Your task to perform on an android device: open app "Microsoft Excel" (install if not already installed) and go to login screen Image 0: 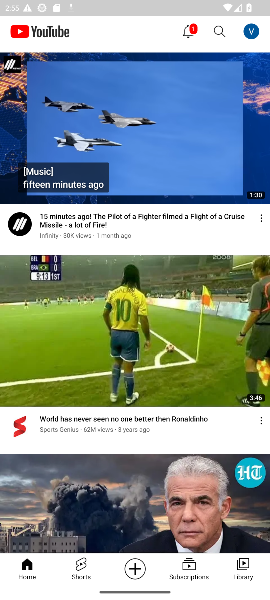
Step 0: click (209, 36)
Your task to perform on an android device: open app "Microsoft Excel" (install if not already installed) and go to login screen Image 1: 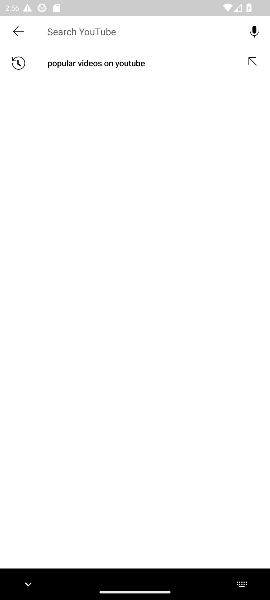
Step 1: type "microsoft excel"
Your task to perform on an android device: open app "Microsoft Excel" (install if not already installed) and go to login screen Image 2: 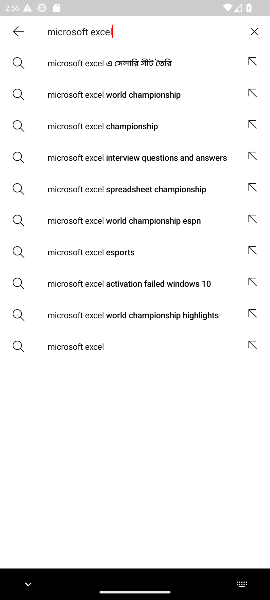
Step 2: click (74, 335)
Your task to perform on an android device: open app "Microsoft Excel" (install if not already installed) and go to login screen Image 3: 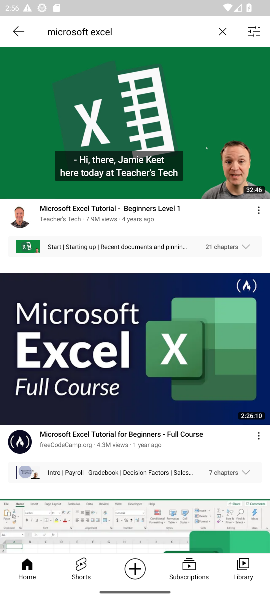
Step 3: press home button
Your task to perform on an android device: open app "Microsoft Excel" (install if not already installed) and go to login screen Image 4: 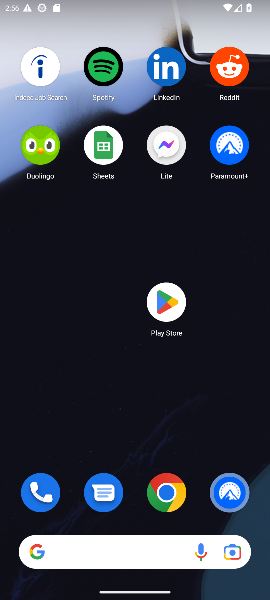
Step 4: click (153, 307)
Your task to perform on an android device: open app "Microsoft Excel" (install if not already installed) and go to login screen Image 5: 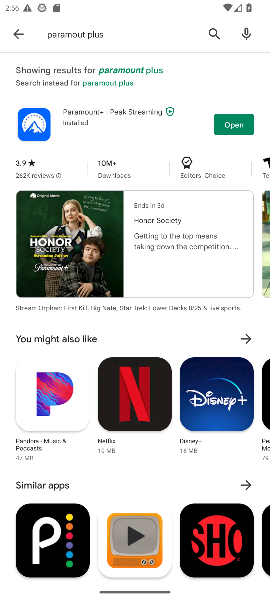
Step 5: click (212, 35)
Your task to perform on an android device: open app "Microsoft Excel" (install if not already installed) and go to login screen Image 6: 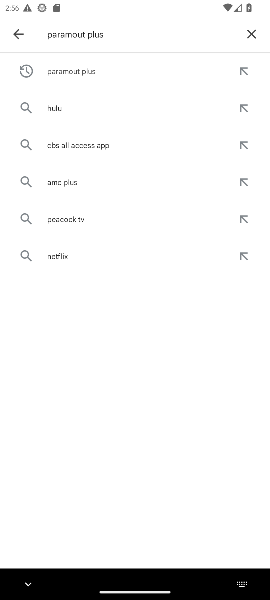
Step 6: click (249, 35)
Your task to perform on an android device: open app "Microsoft Excel" (install if not already installed) and go to login screen Image 7: 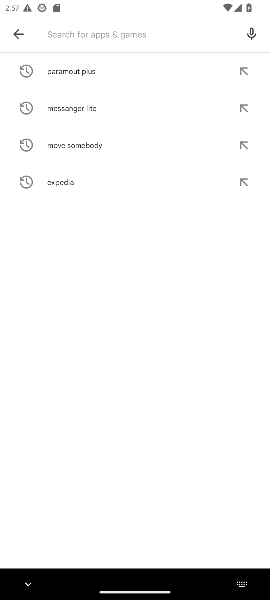
Step 7: type "microsft"
Your task to perform on an android device: open app "Microsoft Excel" (install if not already installed) and go to login screen Image 8: 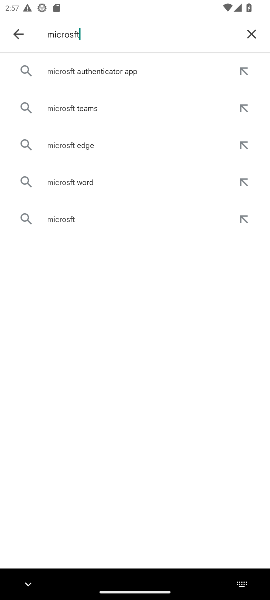
Step 8: type " excel"
Your task to perform on an android device: open app "Microsoft Excel" (install if not already installed) and go to login screen Image 9: 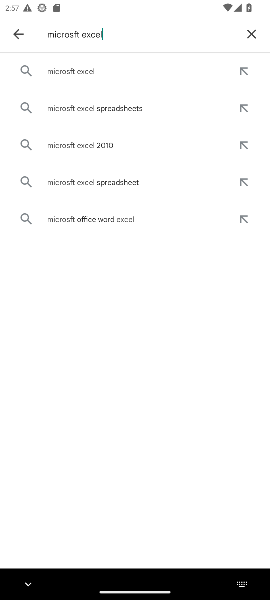
Step 9: click (85, 69)
Your task to perform on an android device: open app "Microsoft Excel" (install if not already installed) and go to login screen Image 10: 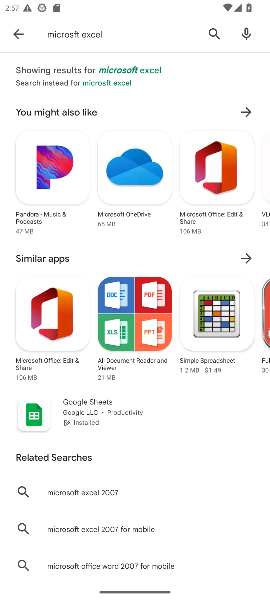
Step 10: click (149, 73)
Your task to perform on an android device: open app "Microsoft Excel" (install if not already installed) and go to login screen Image 11: 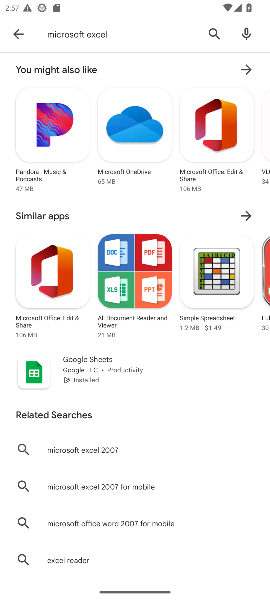
Step 11: task complete